Your task to perform on an android device: turn on bluetooth scan Image 0: 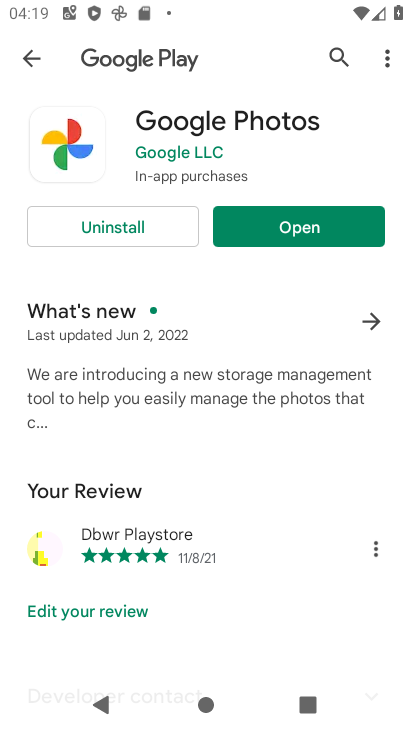
Step 0: press home button
Your task to perform on an android device: turn on bluetooth scan Image 1: 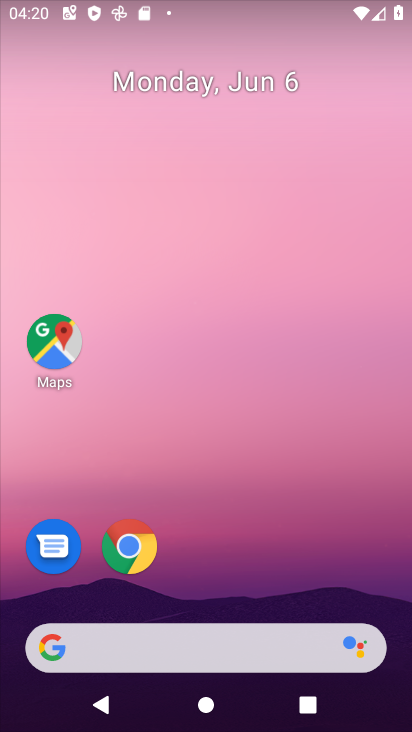
Step 1: drag from (285, 562) to (279, 74)
Your task to perform on an android device: turn on bluetooth scan Image 2: 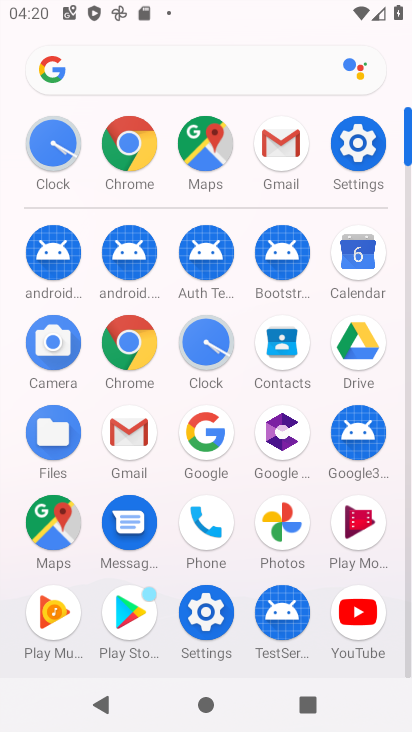
Step 2: click (380, 135)
Your task to perform on an android device: turn on bluetooth scan Image 3: 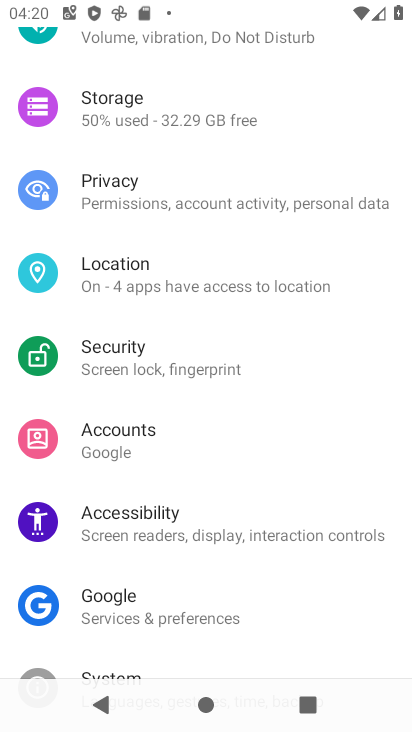
Step 3: drag from (181, 611) to (254, 238)
Your task to perform on an android device: turn on bluetooth scan Image 4: 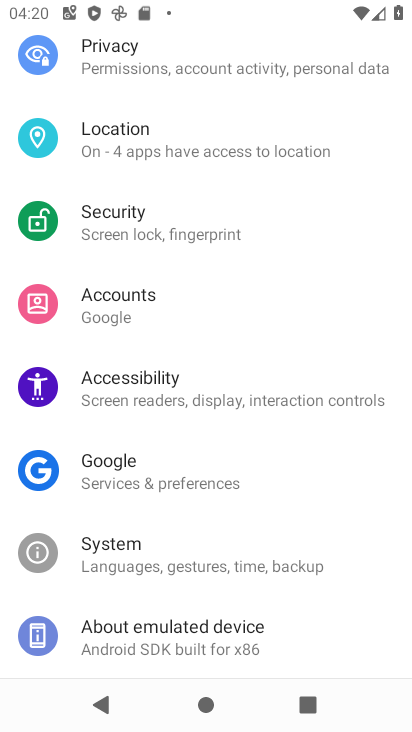
Step 4: click (246, 528)
Your task to perform on an android device: turn on bluetooth scan Image 5: 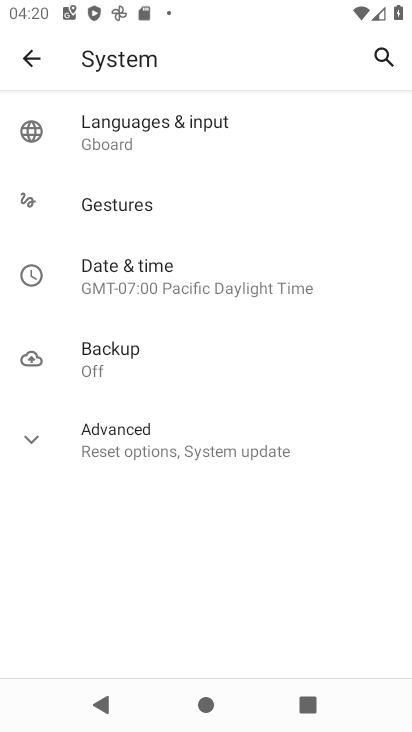
Step 5: task complete